Your task to perform on an android device: Toggle the flashlight Image 0: 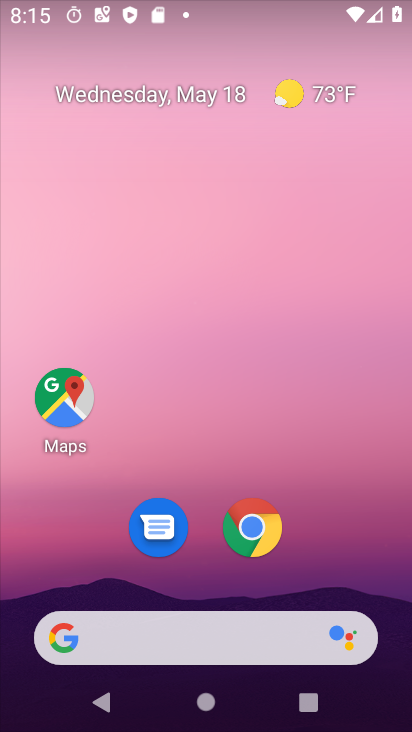
Step 0: drag from (376, 698) to (281, 154)
Your task to perform on an android device: Toggle the flashlight Image 1: 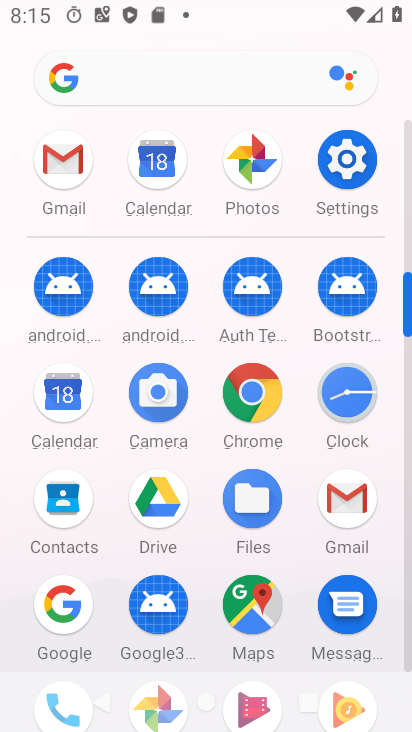
Step 1: click (359, 163)
Your task to perform on an android device: Toggle the flashlight Image 2: 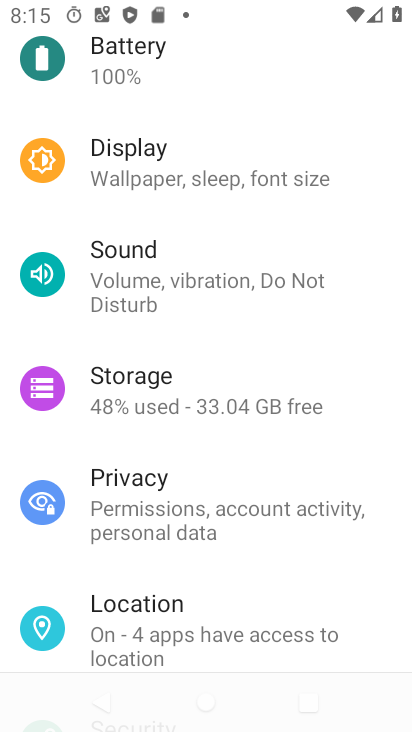
Step 2: click (126, 185)
Your task to perform on an android device: Toggle the flashlight Image 3: 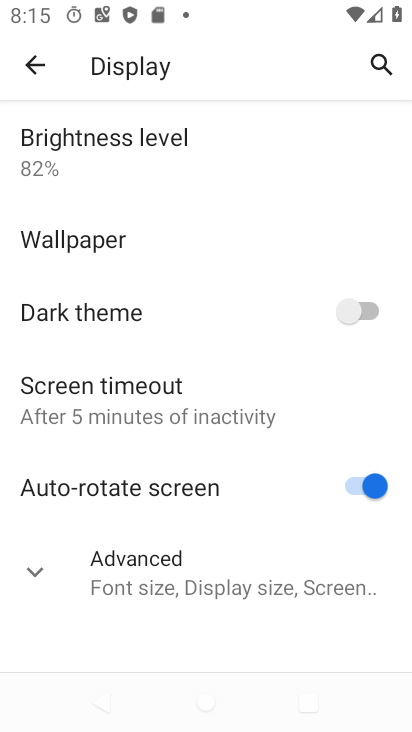
Step 3: task complete